Your task to perform on an android device: empty trash in the gmail app Image 0: 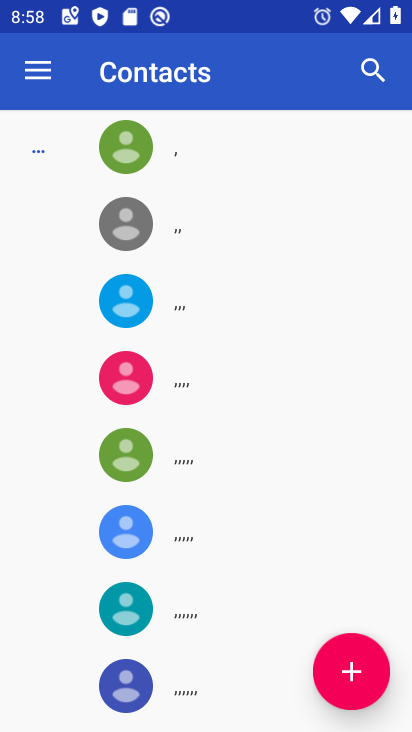
Step 0: press home button
Your task to perform on an android device: empty trash in the gmail app Image 1: 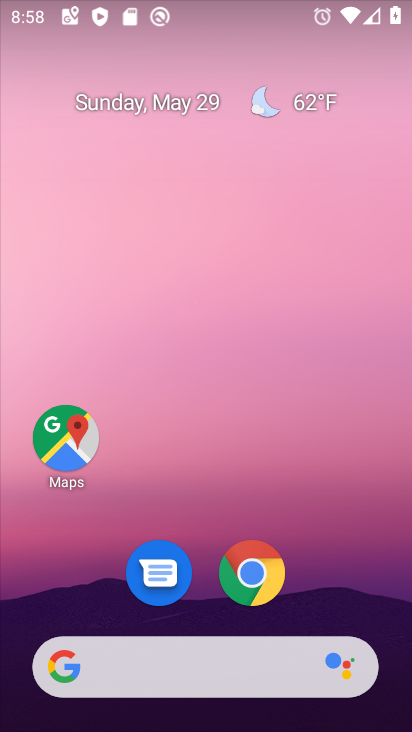
Step 1: drag from (323, 617) to (200, 42)
Your task to perform on an android device: empty trash in the gmail app Image 2: 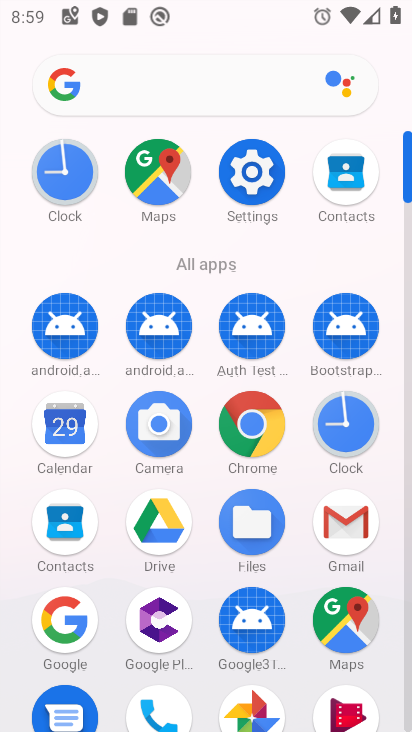
Step 2: click (343, 532)
Your task to perform on an android device: empty trash in the gmail app Image 3: 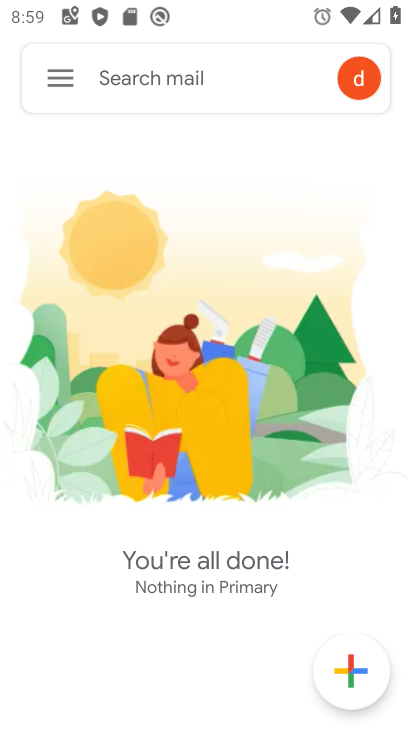
Step 3: click (66, 82)
Your task to perform on an android device: empty trash in the gmail app Image 4: 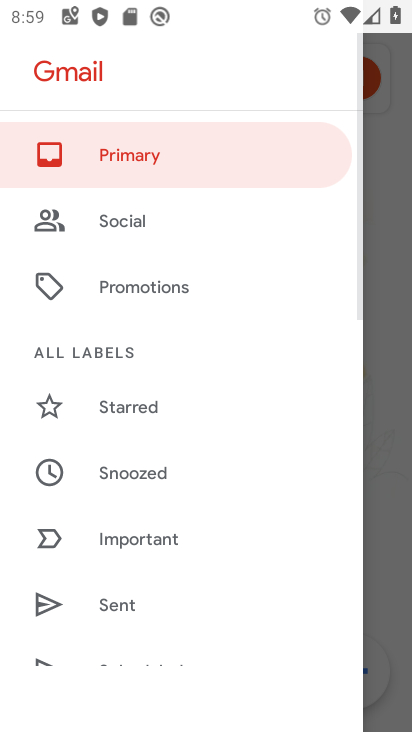
Step 4: drag from (234, 589) to (201, 176)
Your task to perform on an android device: empty trash in the gmail app Image 5: 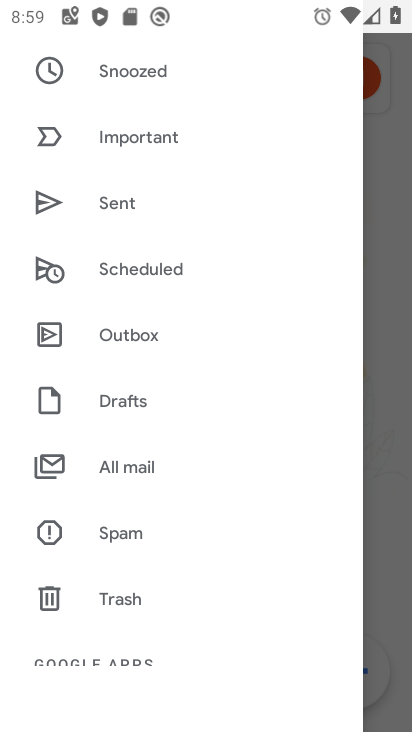
Step 5: click (115, 604)
Your task to perform on an android device: empty trash in the gmail app Image 6: 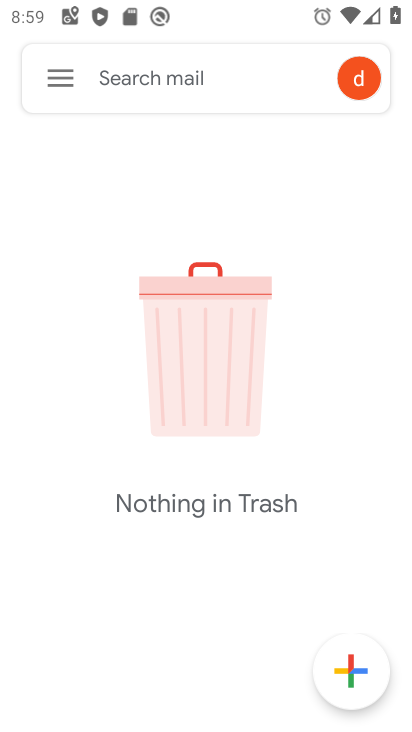
Step 6: task complete